Your task to perform on an android device: Open wifi settings Image 0: 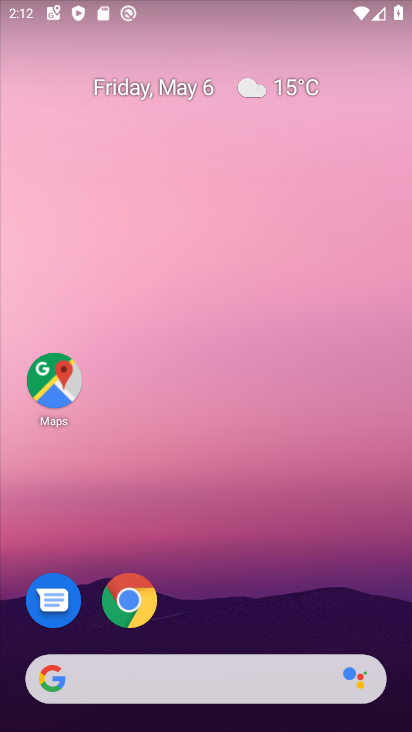
Step 0: drag from (325, 635) to (281, 38)
Your task to perform on an android device: Open wifi settings Image 1: 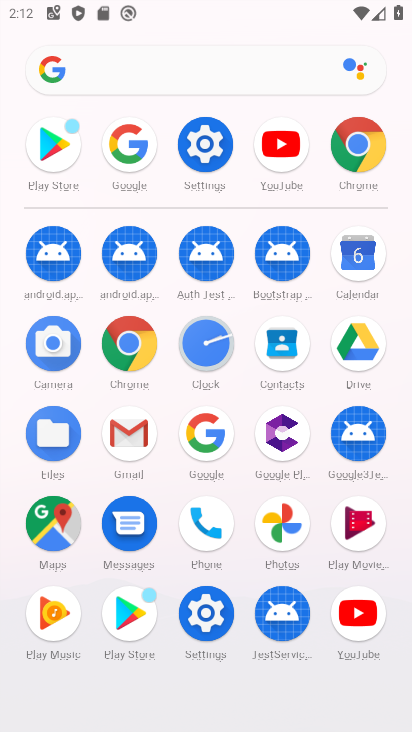
Step 1: click (211, 149)
Your task to perform on an android device: Open wifi settings Image 2: 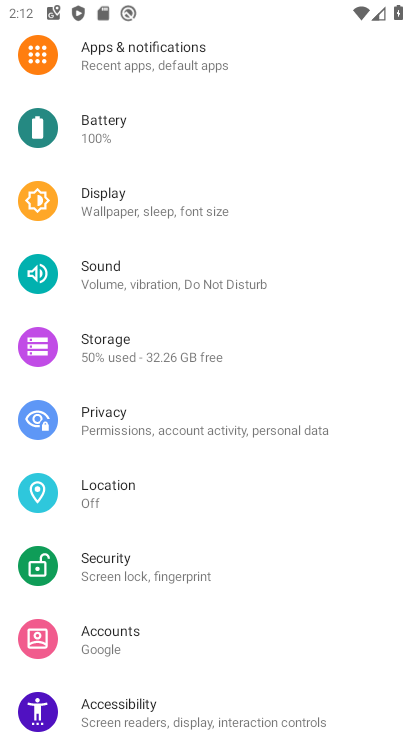
Step 2: drag from (170, 103) to (213, 605)
Your task to perform on an android device: Open wifi settings Image 3: 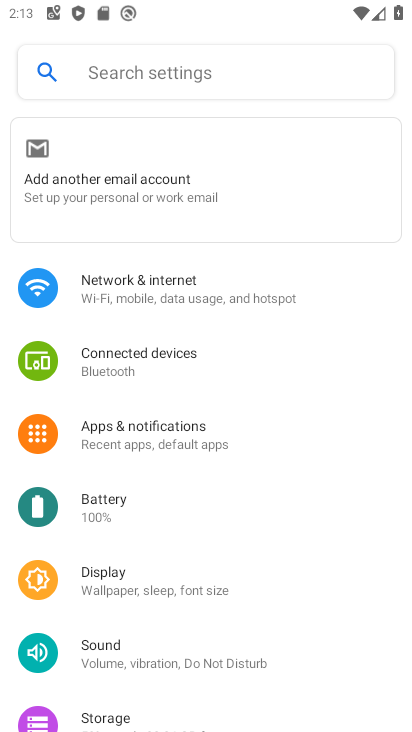
Step 3: click (85, 292)
Your task to perform on an android device: Open wifi settings Image 4: 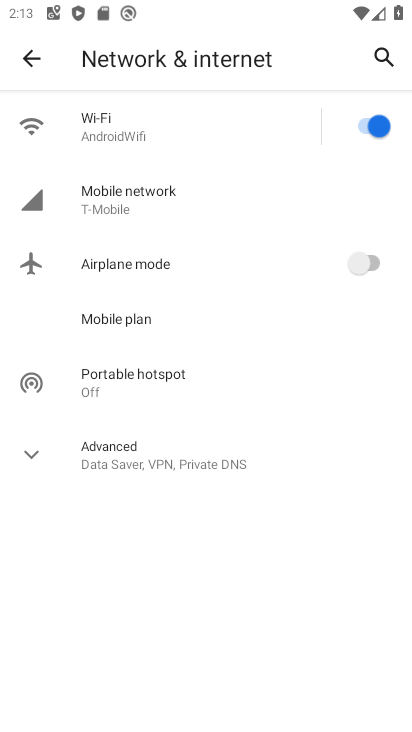
Step 4: click (99, 120)
Your task to perform on an android device: Open wifi settings Image 5: 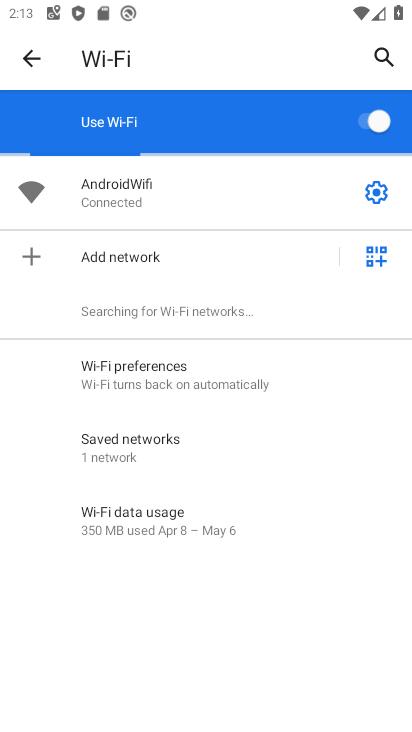
Step 5: task complete